Your task to perform on an android device: What's on my calendar today? Image 0: 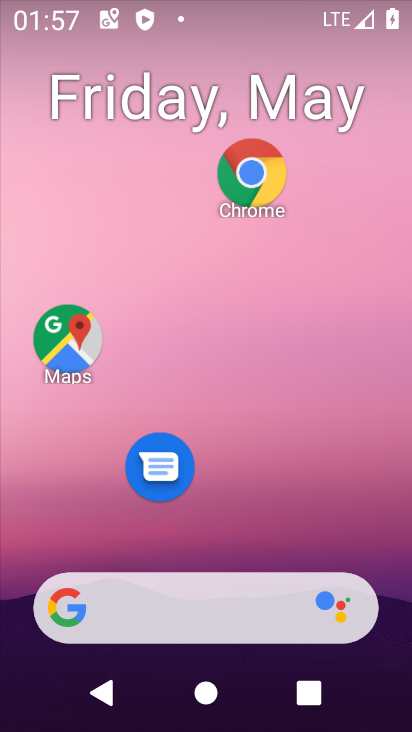
Step 0: drag from (291, 657) to (290, 221)
Your task to perform on an android device: What's on my calendar today? Image 1: 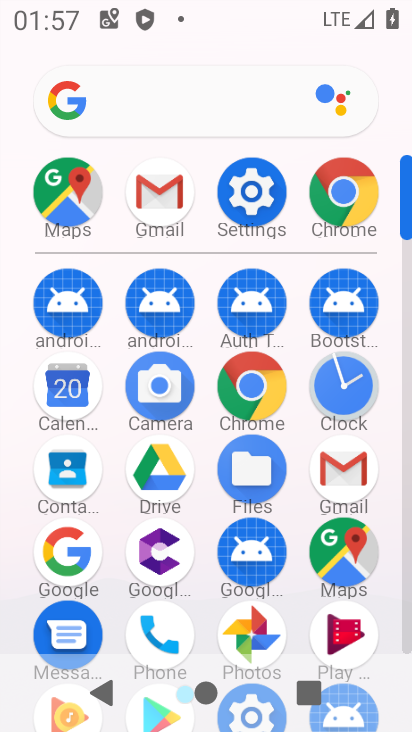
Step 1: click (81, 387)
Your task to perform on an android device: What's on my calendar today? Image 2: 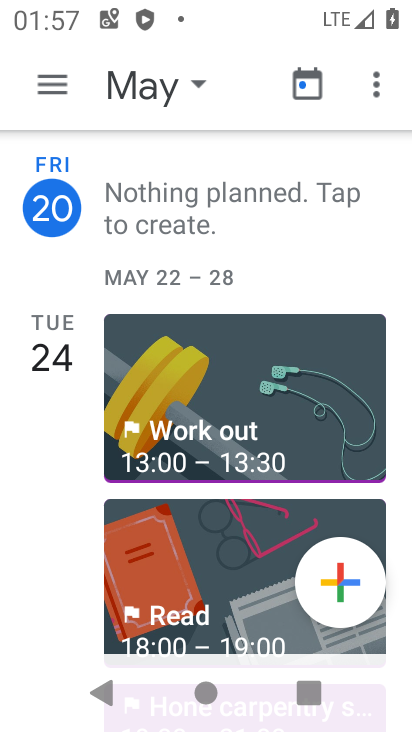
Step 2: click (45, 92)
Your task to perform on an android device: What's on my calendar today? Image 3: 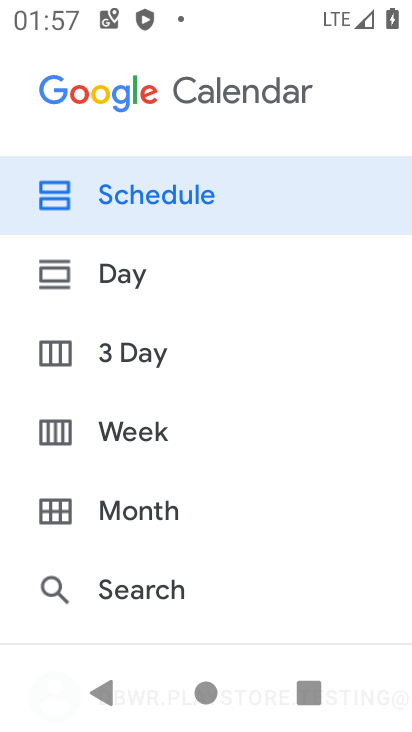
Step 3: click (140, 228)
Your task to perform on an android device: What's on my calendar today? Image 4: 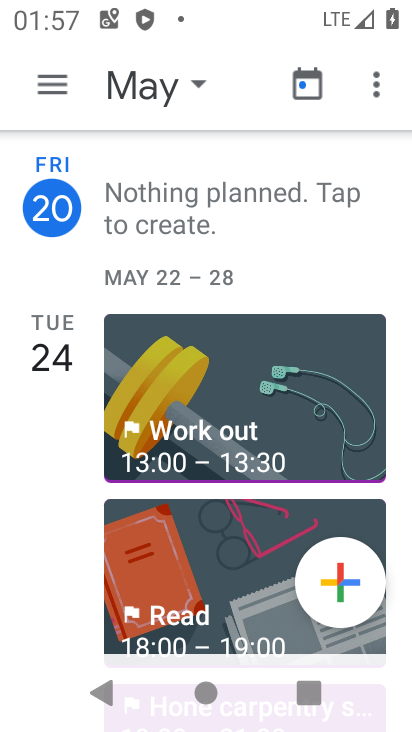
Step 4: task complete